Your task to perform on an android device: search for starred emails in the gmail app Image 0: 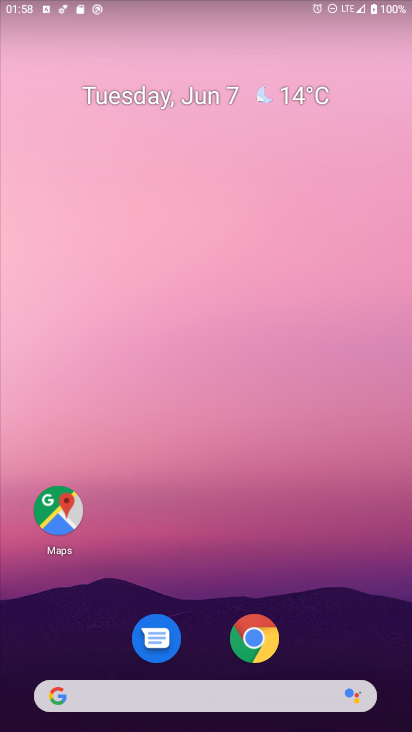
Step 0: drag from (271, 705) to (196, 121)
Your task to perform on an android device: search for starred emails in the gmail app Image 1: 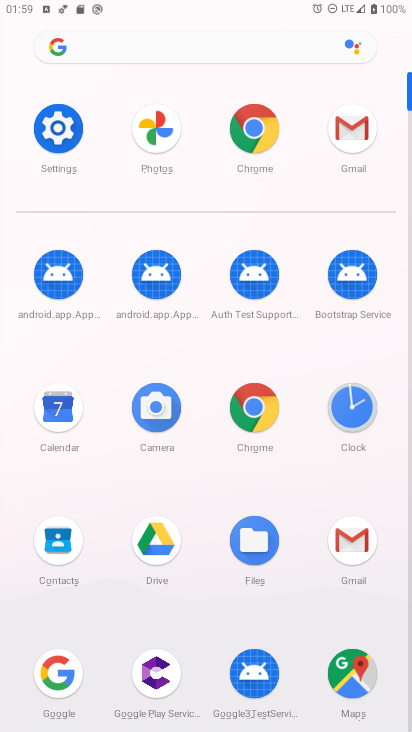
Step 1: click (337, 118)
Your task to perform on an android device: search for starred emails in the gmail app Image 2: 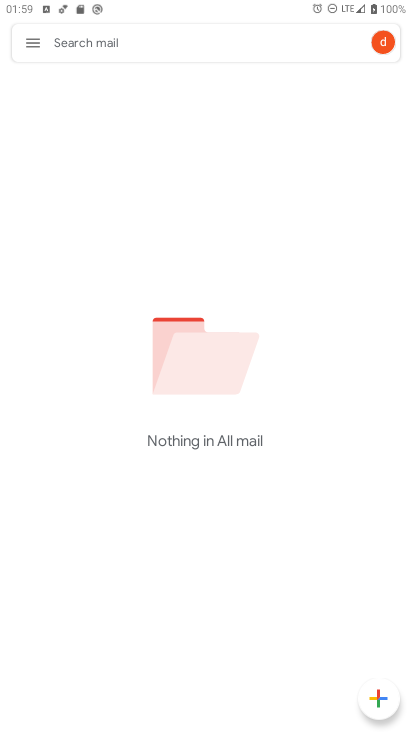
Step 2: click (33, 56)
Your task to perform on an android device: search for starred emails in the gmail app Image 3: 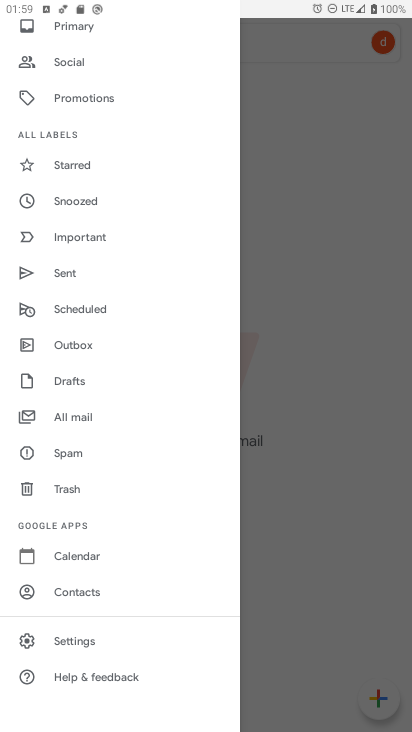
Step 3: click (55, 153)
Your task to perform on an android device: search for starred emails in the gmail app Image 4: 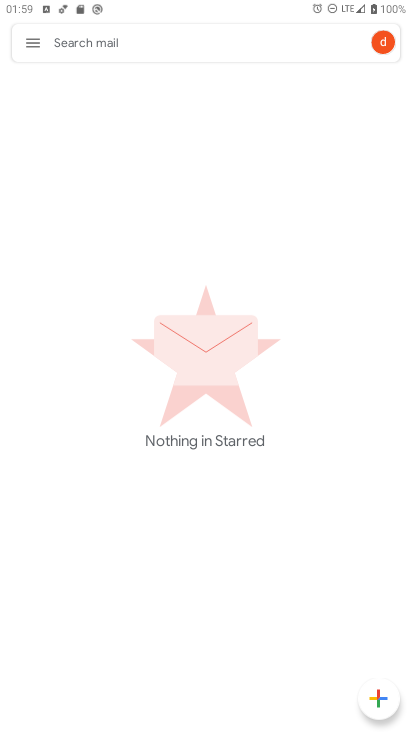
Step 4: task complete